Your task to perform on an android device: open app "Etsy: Buy & Sell Unique Items" (install if not already installed), go to login, and select forgot password Image 0: 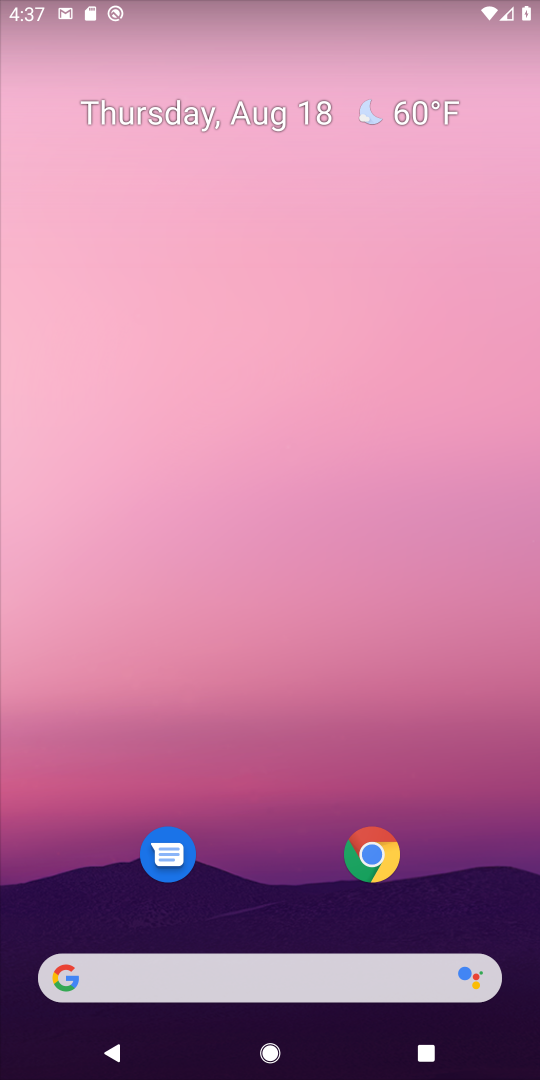
Step 0: drag from (251, 887) to (273, 304)
Your task to perform on an android device: open app "Etsy: Buy & Sell Unique Items" (install if not already installed), go to login, and select forgot password Image 1: 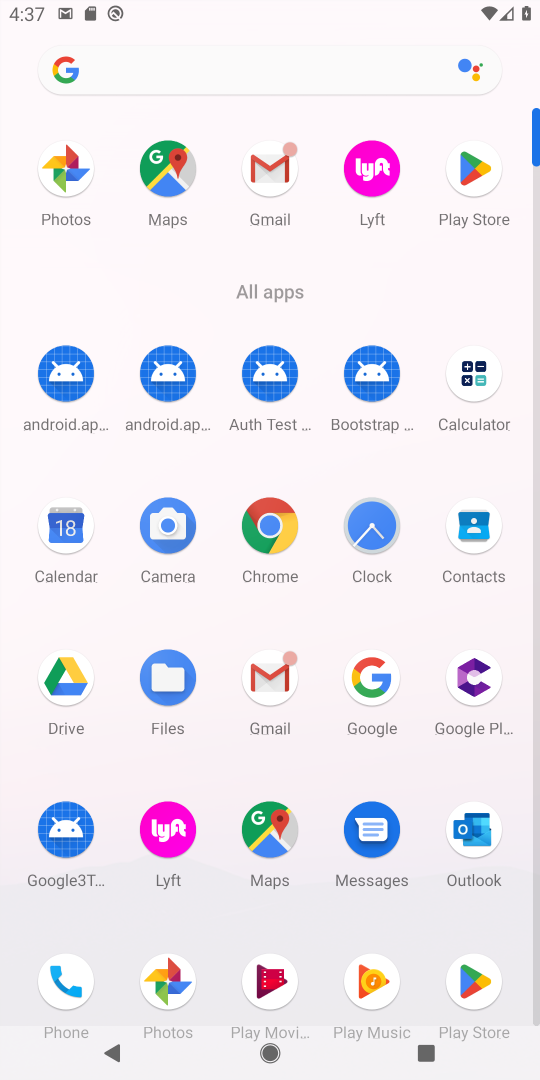
Step 1: click (469, 168)
Your task to perform on an android device: open app "Etsy: Buy & Sell Unique Items" (install if not already installed), go to login, and select forgot password Image 2: 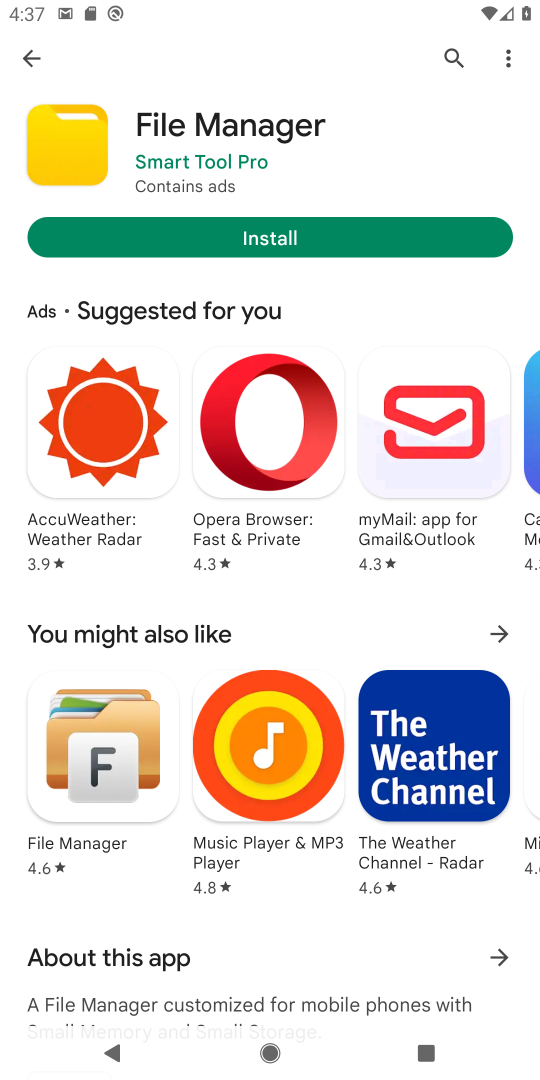
Step 2: click (27, 58)
Your task to perform on an android device: open app "Etsy: Buy & Sell Unique Items" (install if not already installed), go to login, and select forgot password Image 3: 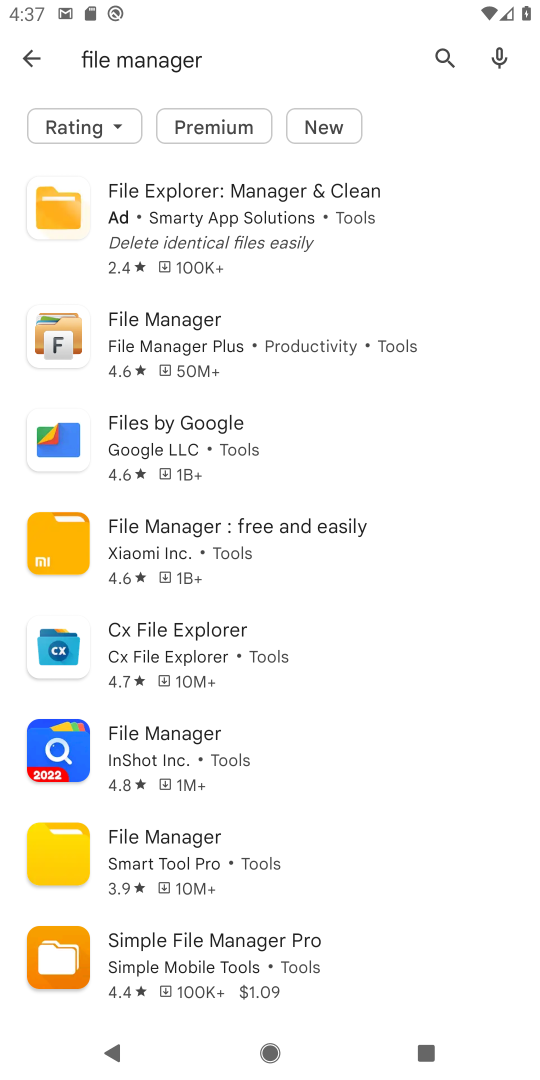
Step 3: click (20, 58)
Your task to perform on an android device: open app "Etsy: Buy & Sell Unique Items" (install if not already installed), go to login, and select forgot password Image 4: 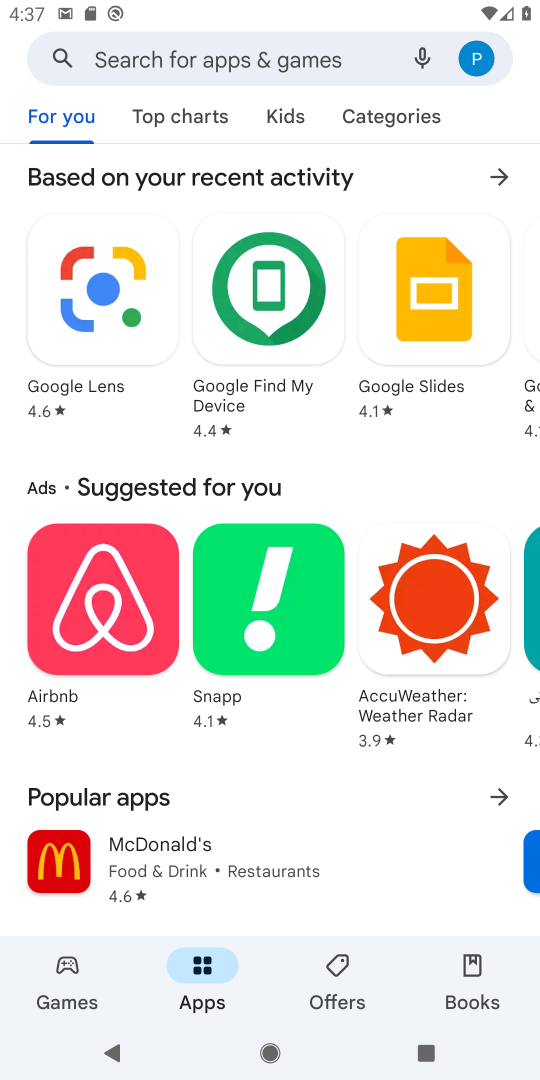
Step 4: click (191, 57)
Your task to perform on an android device: open app "Etsy: Buy & Sell Unique Items" (install if not already installed), go to login, and select forgot password Image 5: 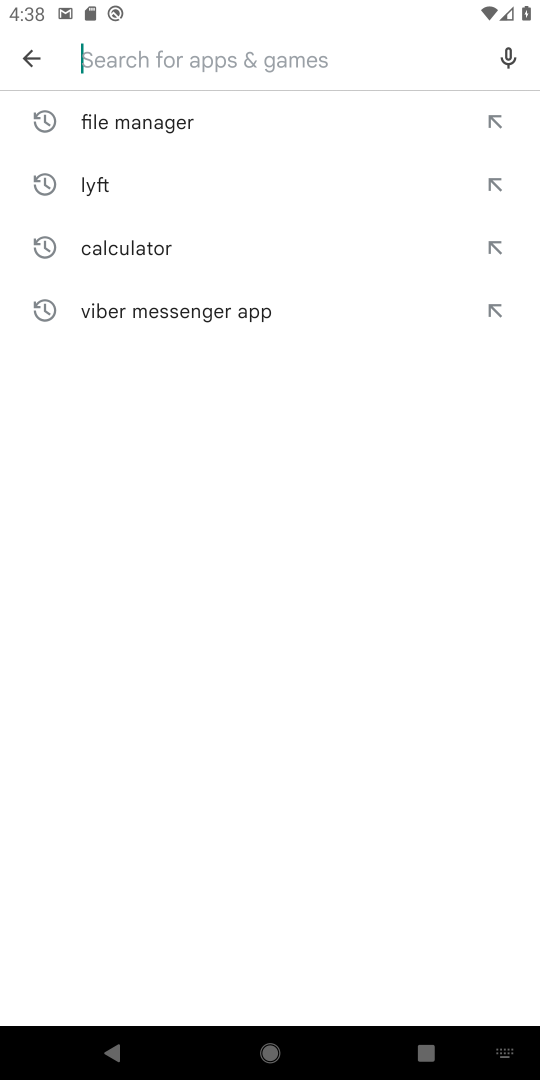
Step 5: drag from (282, 1071) to (473, 1015)
Your task to perform on an android device: open app "Etsy: Buy & Sell Unique Items" (install if not already installed), go to login, and select forgot password Image 6: 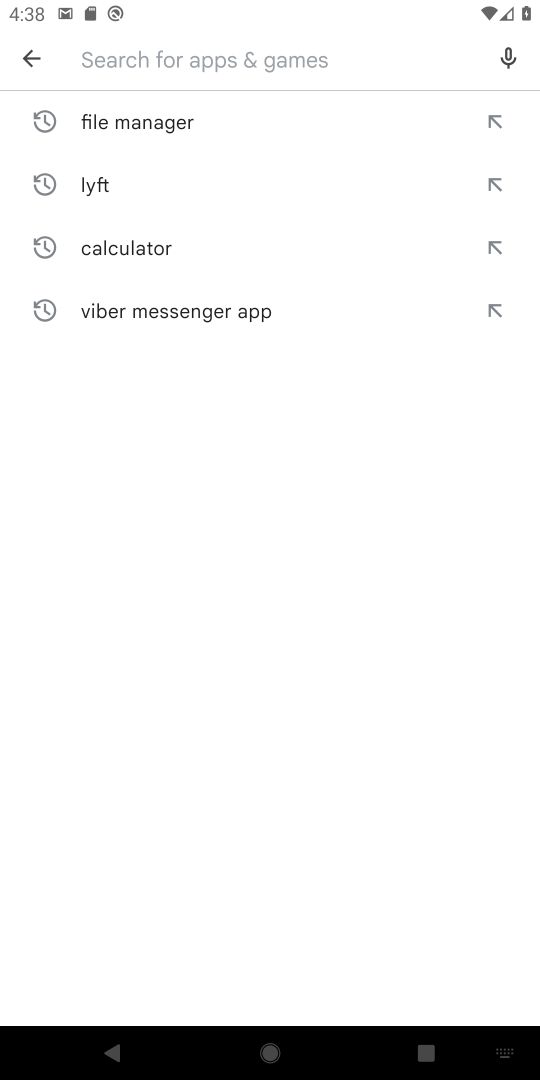
Step 6: type "Etsy: Buy & Sell Unique Items"
Your task to perform on an android device: open app "Etsy: Buy & Sell Unique Items" (install if not already installed), go to login, and select forgot password Image 7: 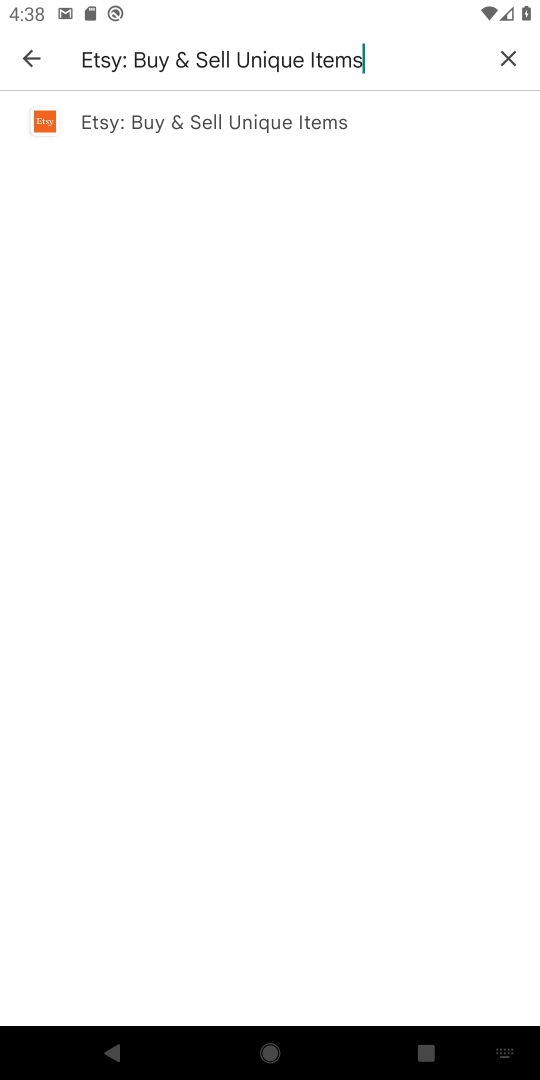
Step 7: click (226, 118)
Your task to perform on an android device: open app "Etsy: Buy & Sell Unique Items" (install if not already installed), go to login, and select forgot password Image 8: 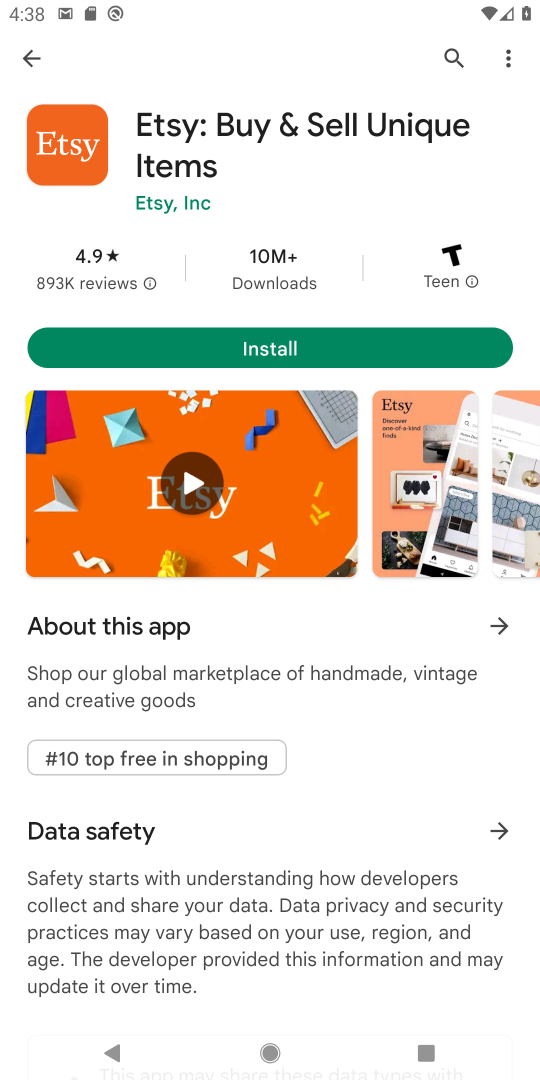
Step 8: click (277, 338)
Your task to perform on an android device: open app "Etsy: Buy & Sell Unique Items" (install if not already installed), go to login, and select forgot password Image 9: 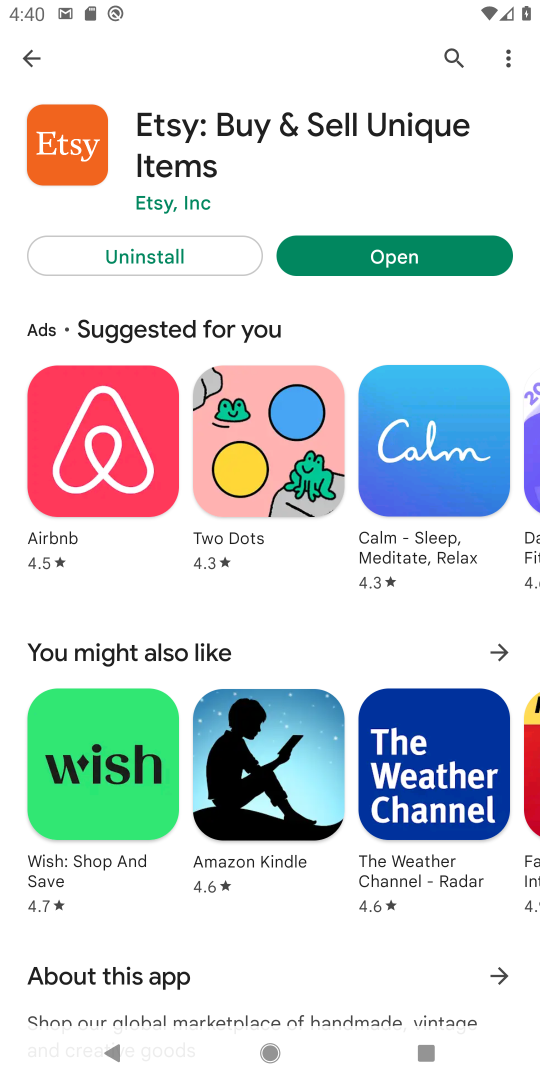
Step 9: click (379, 261)
Your task to perform on an android device: open app "Etsy: Buy & Sell Unique Items" (install if not already installed), go to login, and select forgot password Image 10: 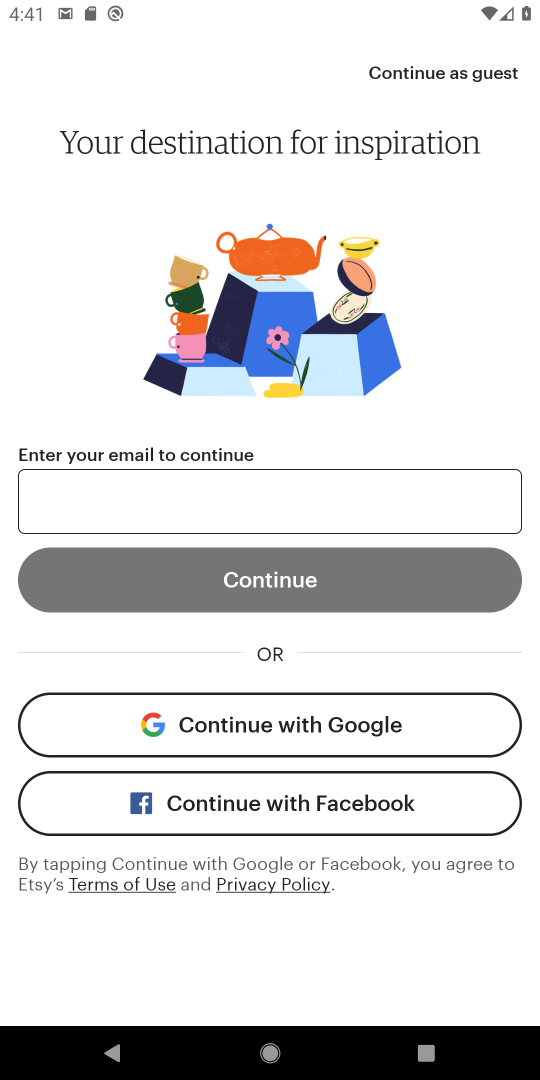
Step 10: task complete